Your task to perform on an android device: Search for Mexican restaurants on Maps Image 0: 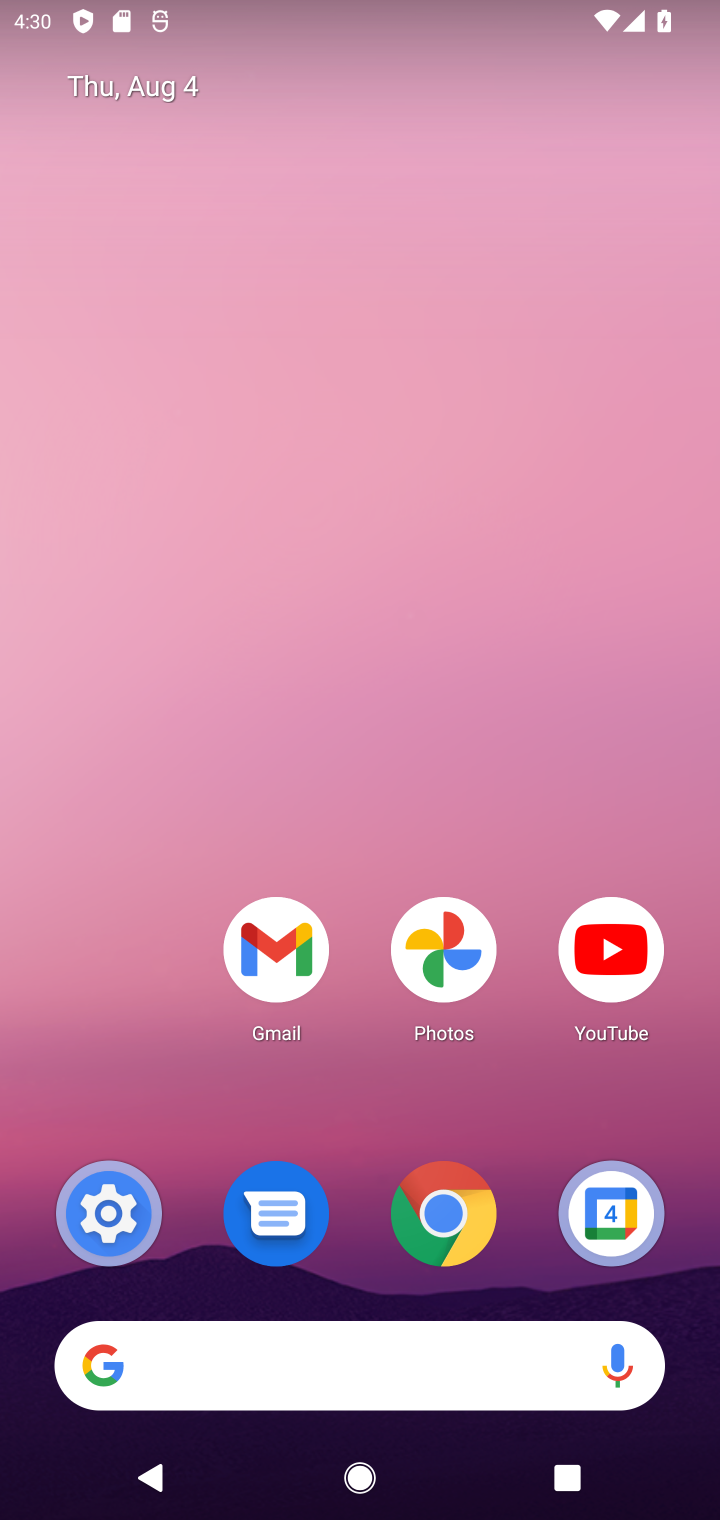
Step 0: press home button
Your task to perform on an android device: Search for Mexican restaurants on Maps Image 1: 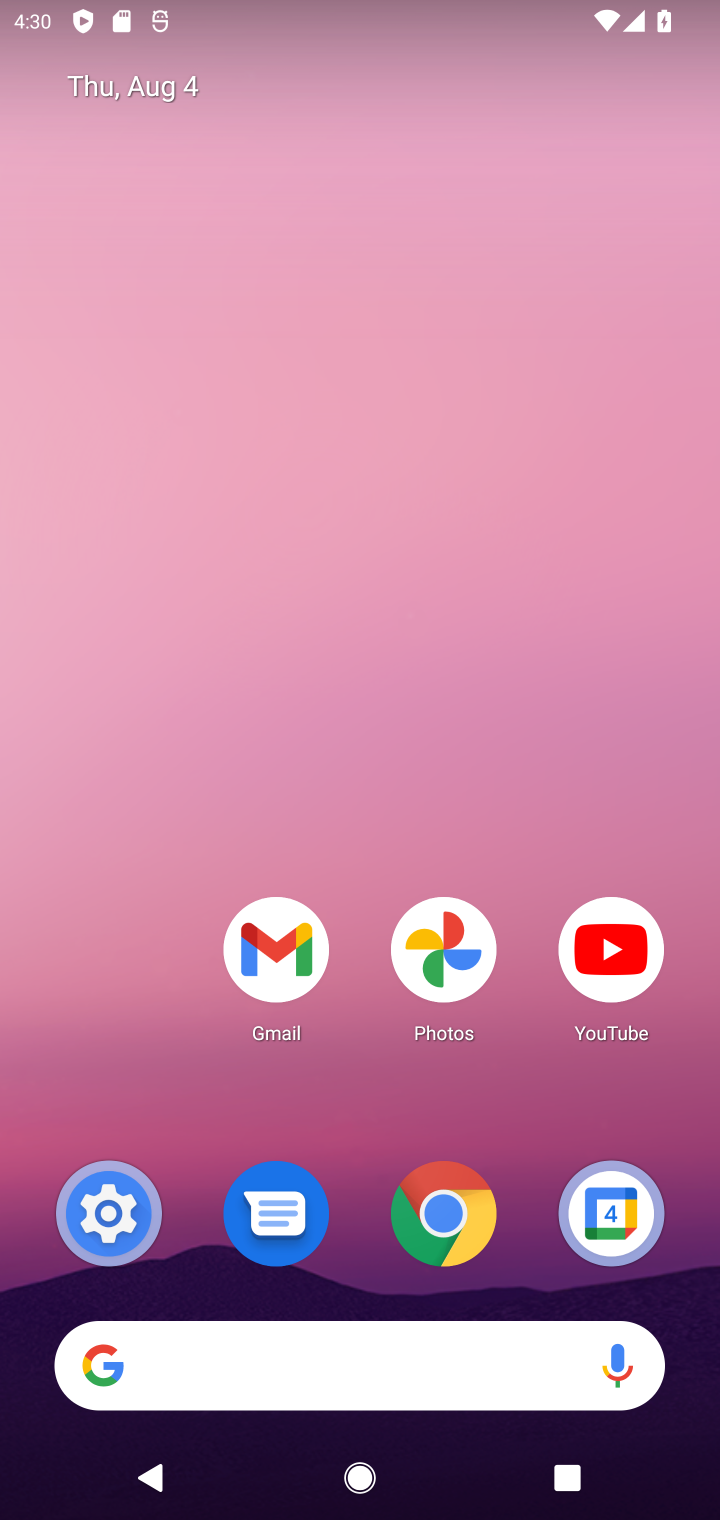
Step 1: drag from (184, 1032) to (243, 368)
Your task to perform on an android device: Search for Mexican restaurants on Maps Image 2: 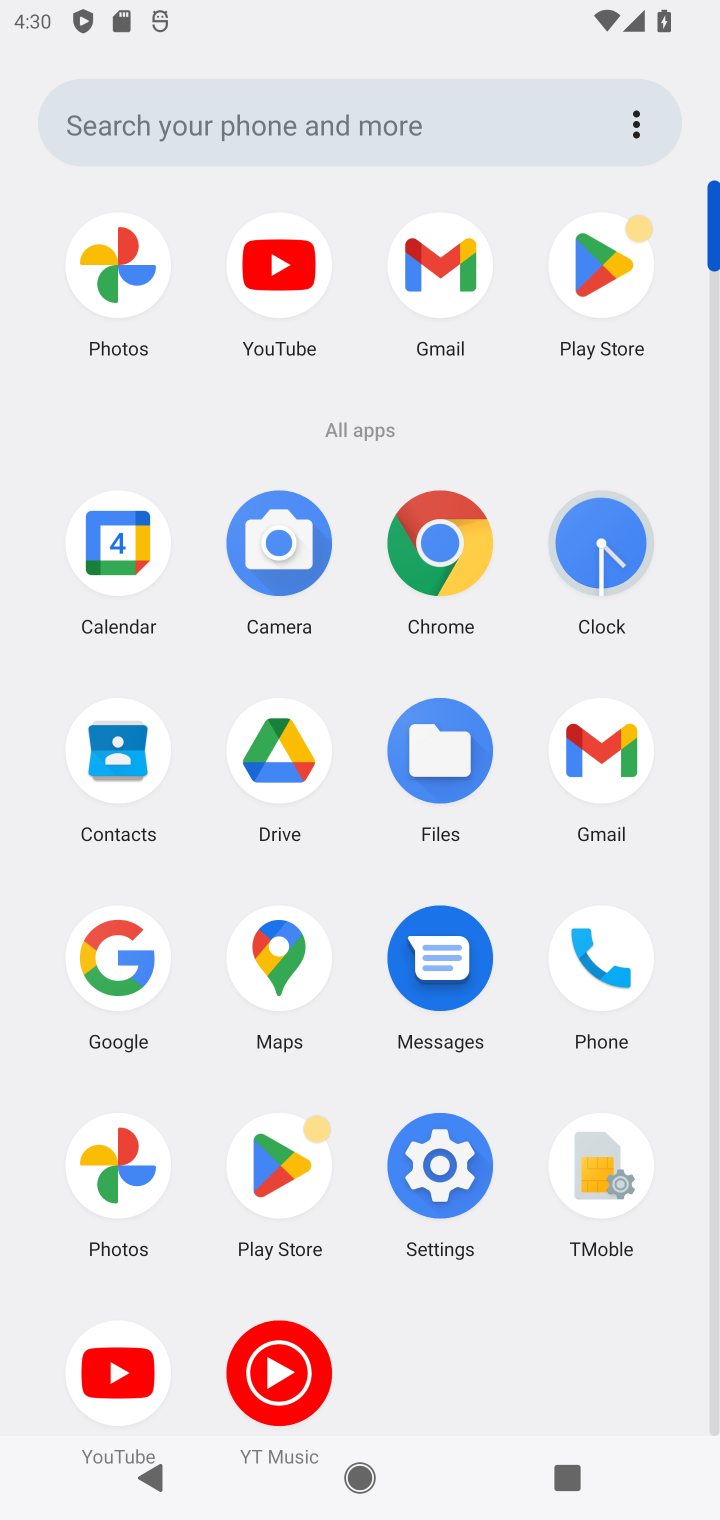
Step 2: click (294, 958)
Your task to perform on an android device: Search for Mexican restaurants on Maps Image 3: 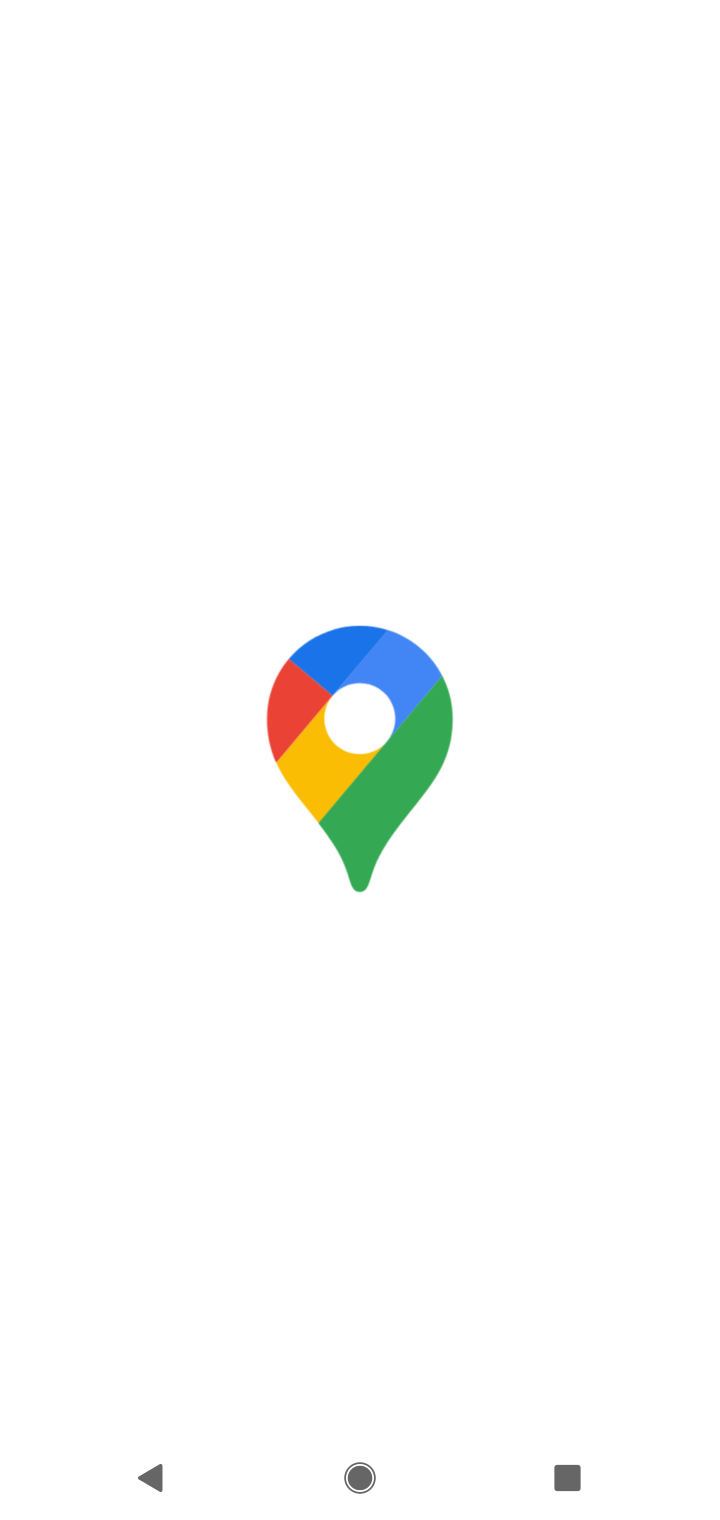
Step 3: task complete